Your task to perform on an android device: toggle pop-ups in chrome Image 0: 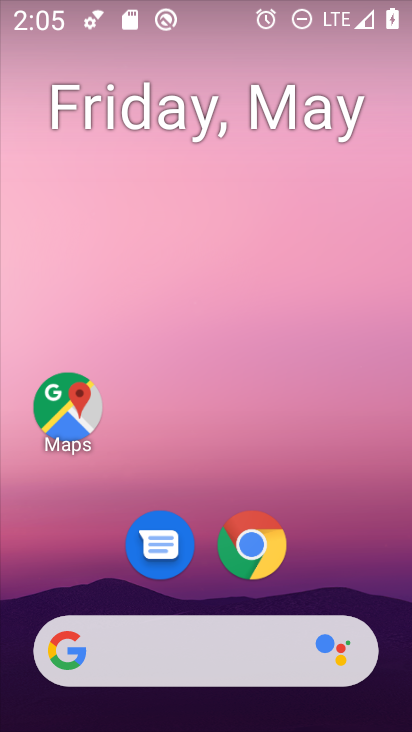
Step 0: click (256, 541)
Your task to perform on an android device: toggle pop-ups in chrome Image 1: 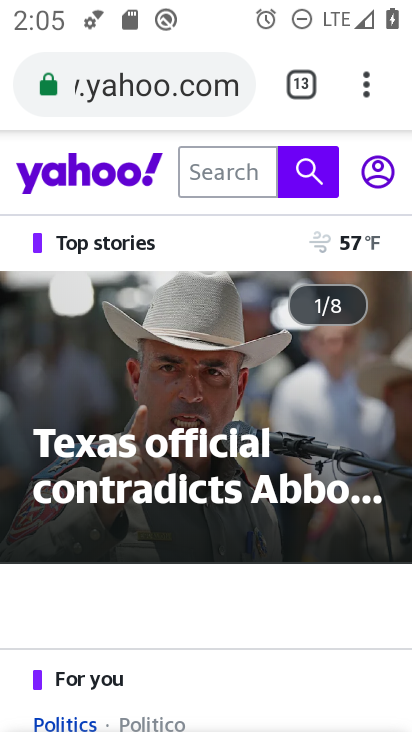
Step 1: click (365, 74)
Your task to perform on an android device: toggle pop-ups in chrome Image 2: 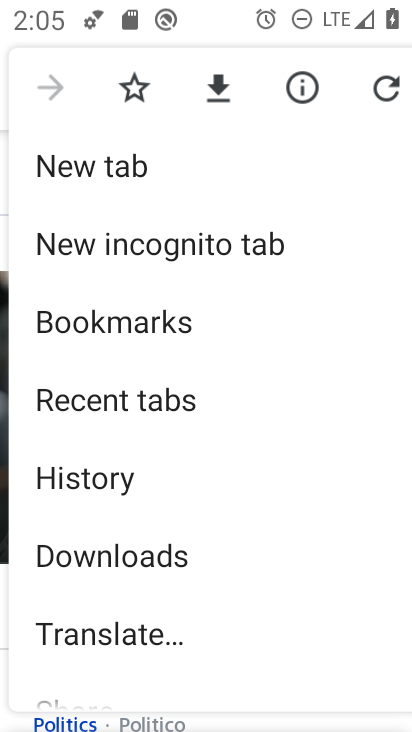
Step 2: drag from (163, 553) to (212, 231)
Your task to perform on an android device: toggle pop-ups in chrome Image 3: 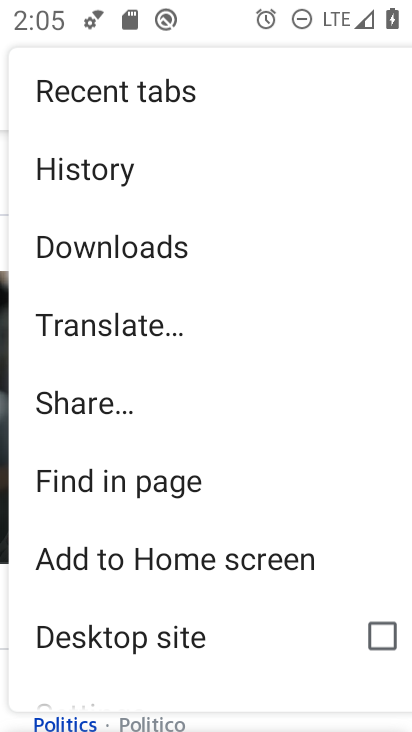
Step 3: drag from (118, 608) to (199, 180)
Your task to perform on an android device: toggle pop-ups in chrome Image 4: 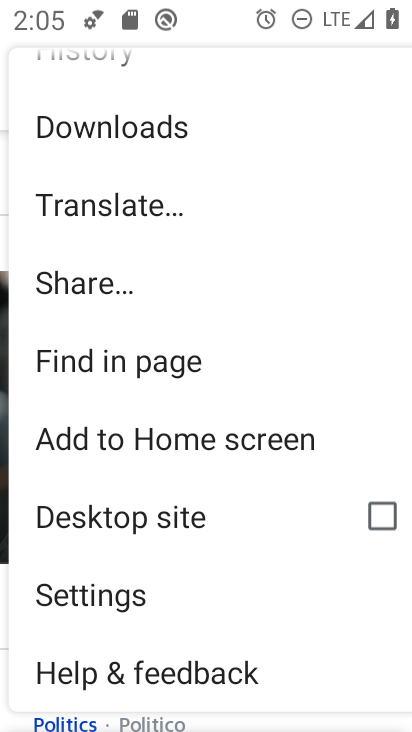
Step 4: click (89, 598)
Your task to perform on an android device: toggle pop-ups in chrome Image 5: 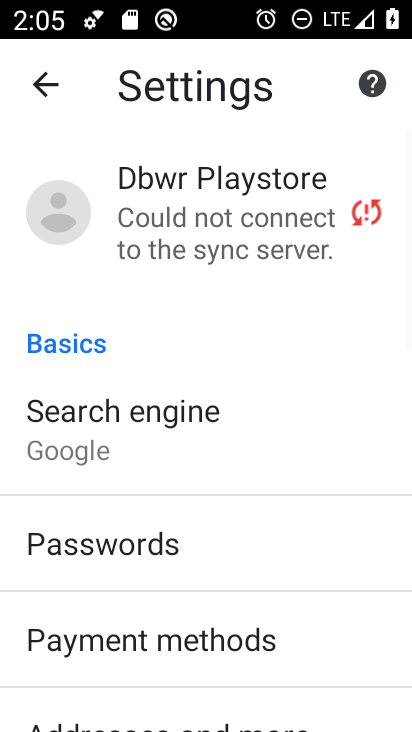
Step 5: drag from (254, 626) to (298, 141)
Your task to perform on an android device: toggle pop-ups in chrome Image 6: 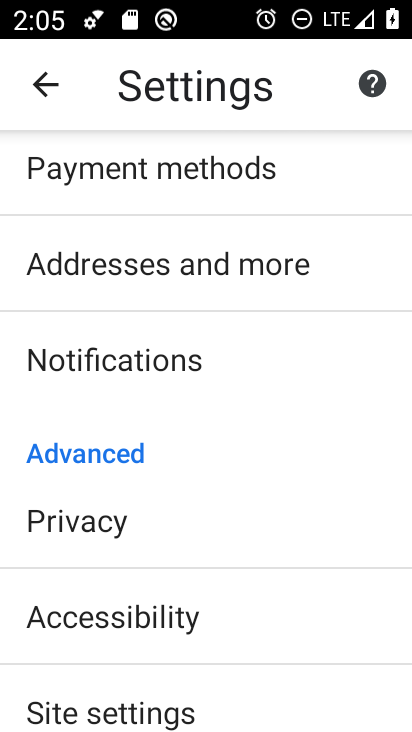
Step 6: drag from (204, 596) to (262, 177)
Your task to perform on an android device: toggle pop-ups in chrome Image 7: 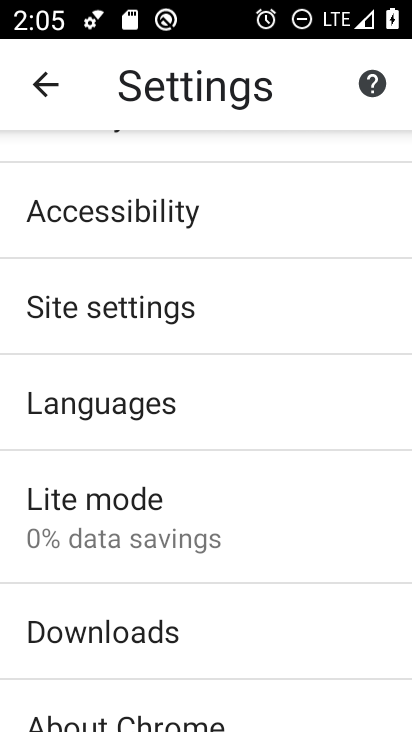
Step 7: drag from (186, 648) to (201, 342)
Your task to perform on an android device: toggle pop-ups in chrome Image 8: 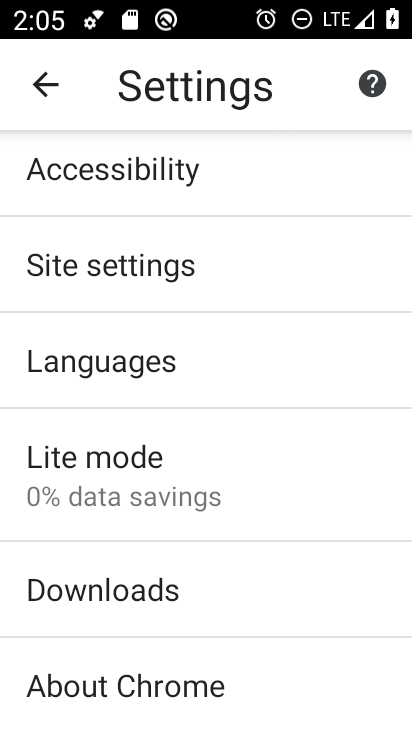
Step 8: click (162, 253)
Your task to perform on an android device: toggle pop-ups in chrome Image 9: 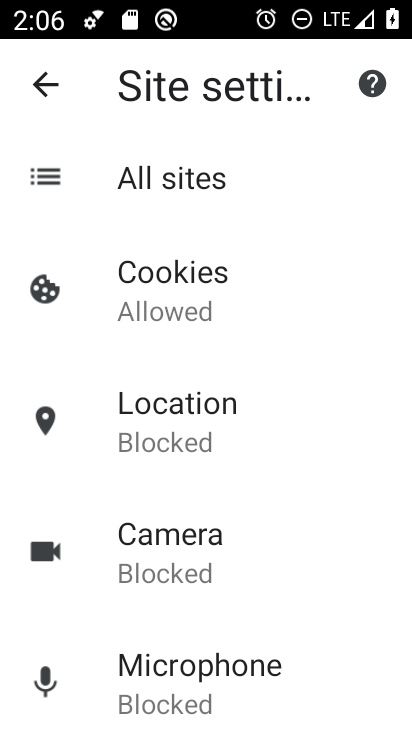
Step 9: drag from (215, 550) to (233, 284)
Your task to perform on an android device: toggle pop-ups in chrome Image 10: 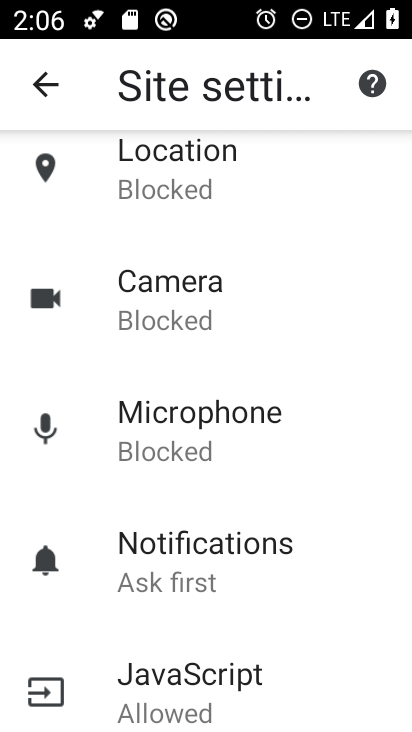
Step 10: drag from (218, 627) to (245, 294)
Your task to perform on an android device: toggle pop-ups in chrome Image 11: 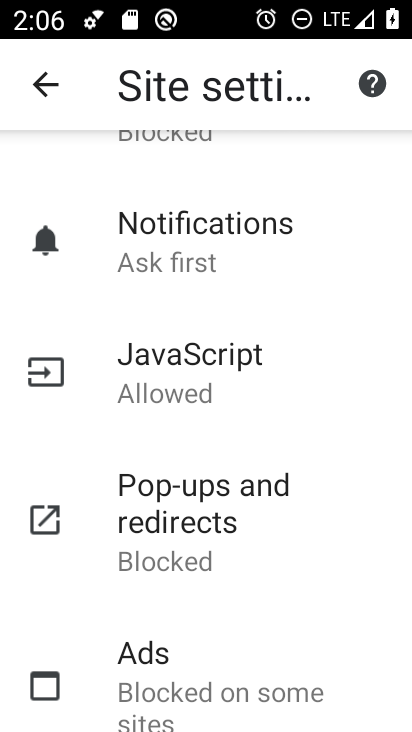
Step 11: click (189, 495)
Your task to perform on an android device: toggle pop-ups in chrome Image 12: 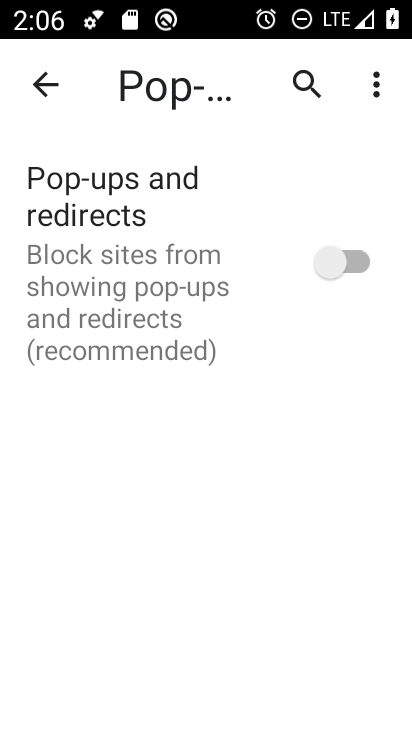
Step 12: click (355, 265)
Your task to perform on an android device: toggle pop-ups in chrome Image 13: 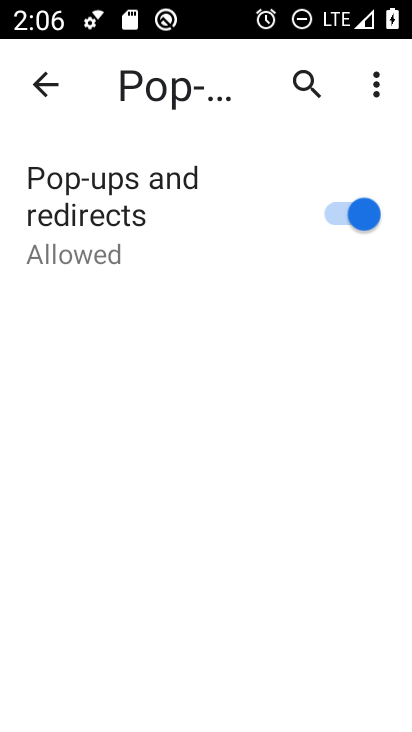
Step 13: task complete